Your task to perform on an android device: check storage Image 0: 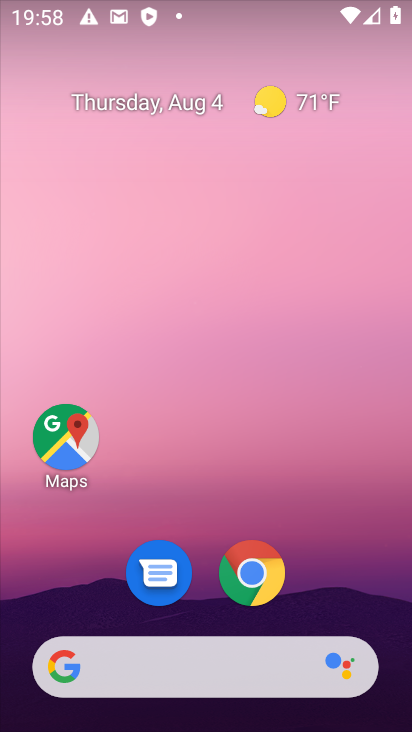
Step 0: drag from (255, 658) to (215, 137)
Your task to perform on an android device: check storage Image 1: 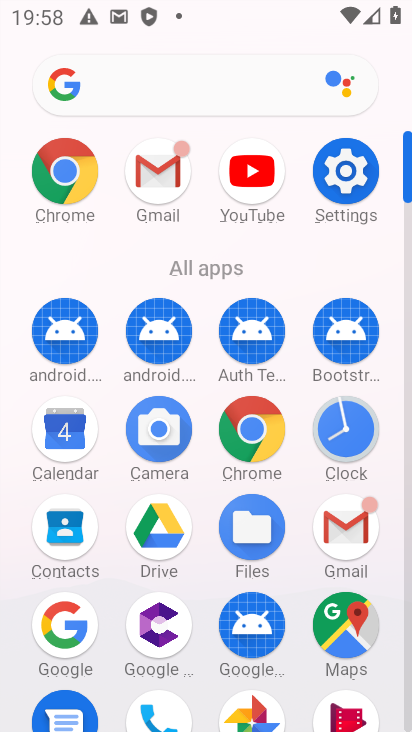
Step 1: click (357, 200)
Your task to perform on an android device: check storage Image 2: 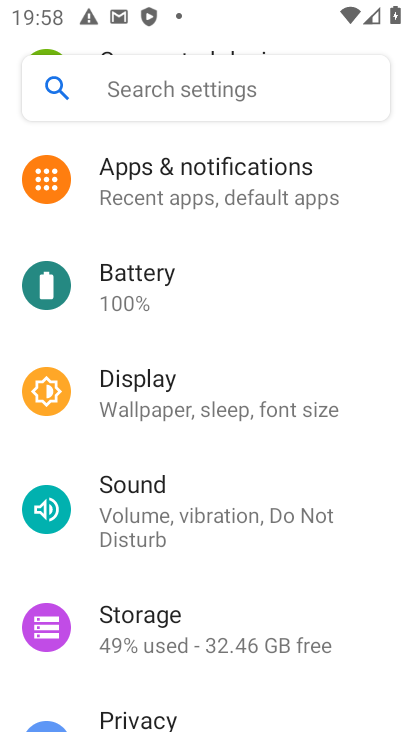
Step 2: click (201, 625)
Your task to perform on an android device: check storage Image 3: 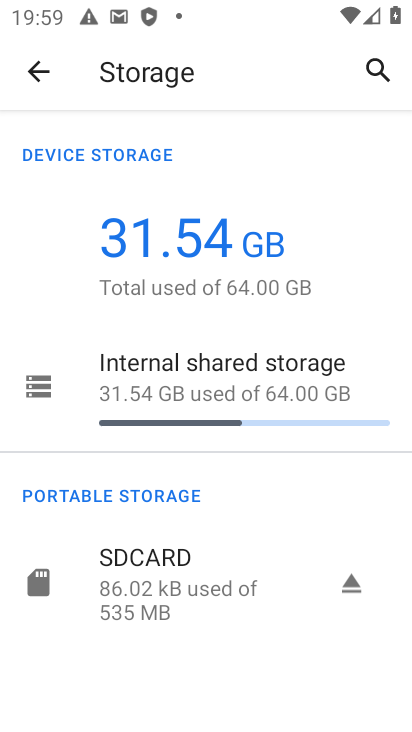
Step 3: task complete